Your task to perform on an android device: Go to settings Image 0: 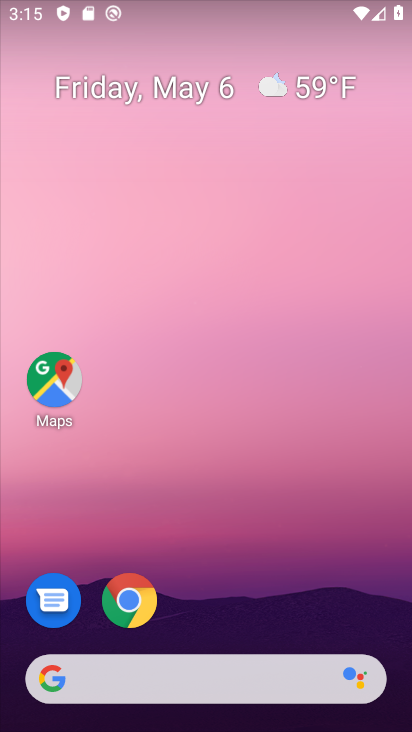
Step 0: drag from (238, 608) to (337, 0)
Your task to perform on an android device: Go to settings Image 1: 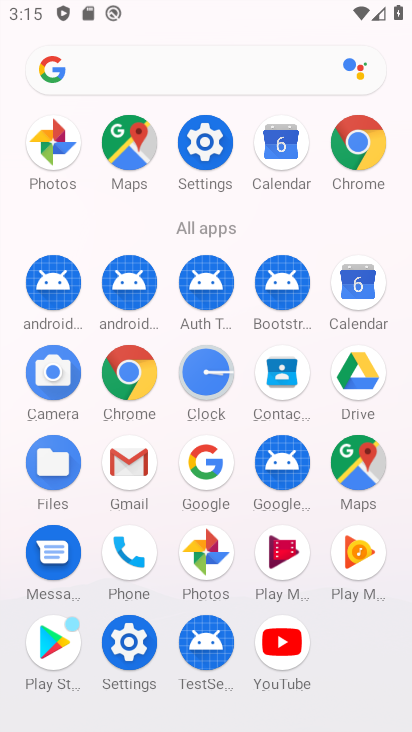
Step 1: click (200, 153)
Your task to perform on an android device: Go to settings Image 2: 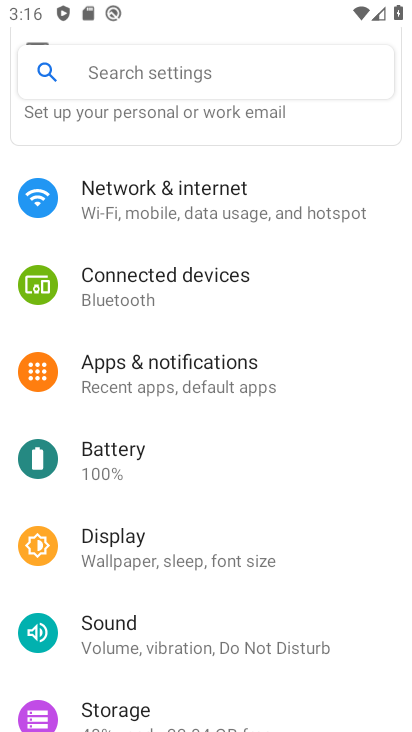
Step 2: task complete